Your task to perform on an android device: stop showing notifications on the lock screen Image 0: 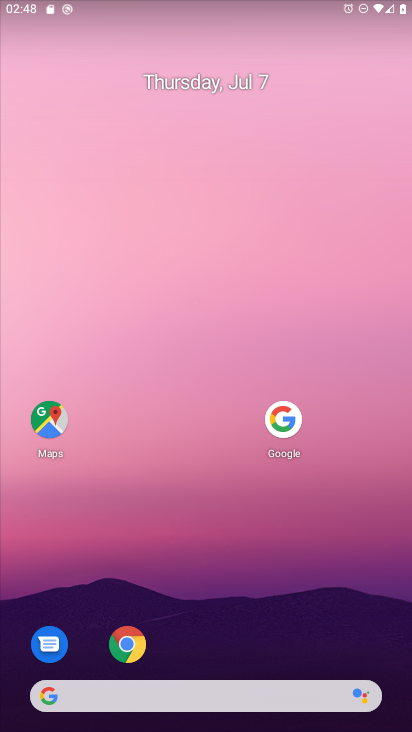
Step 0: drag from (159, 700) to (279, 127)
Your task to perform on an android device: stop showing notifications on the lock screen Image 1: 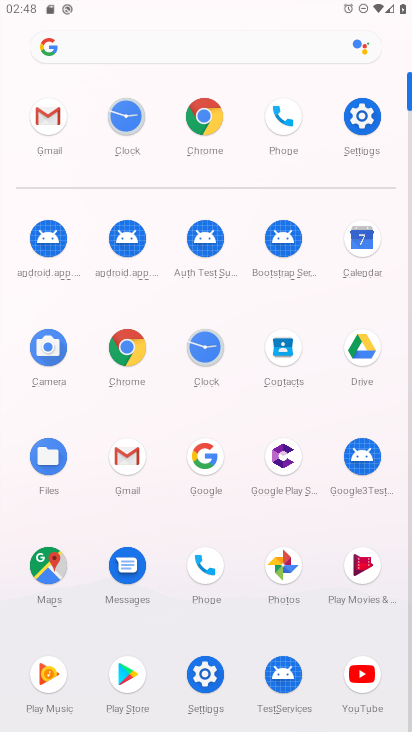
Step 1: click (363, 116)
Your task to perform on an android device: stop showing notifications on the lock screen Image 2: 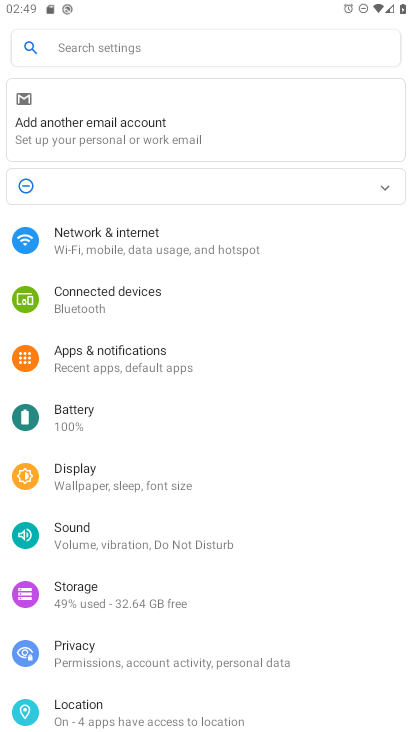
Step 2: click (134, 361)
Your task to perform on an android device: stop showing notifications on the lock screen Image 3: 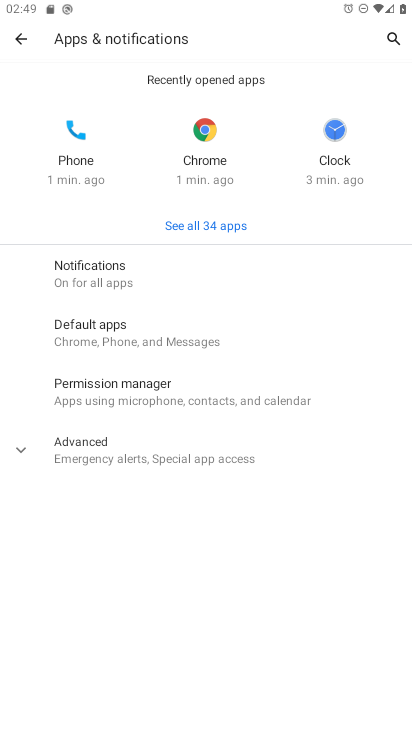
Step 3: click (102, 277)
Your task to perform on an android device: stop showing notifications on the lock screen Image 4: 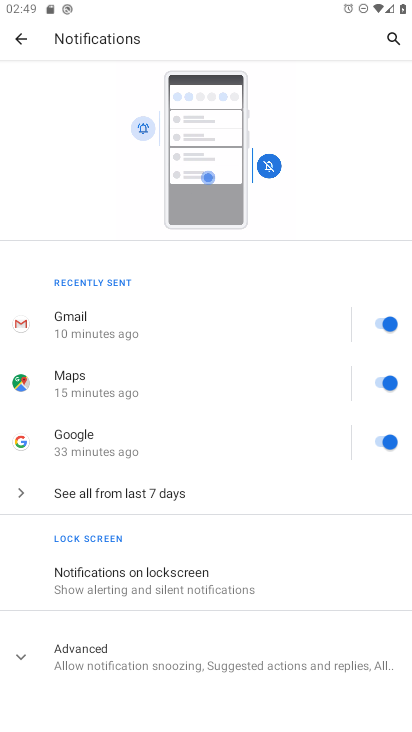
Step 4: click (178, 577)
Your task to perform on an android device: stop showing notifications on the lock screen Image 5: 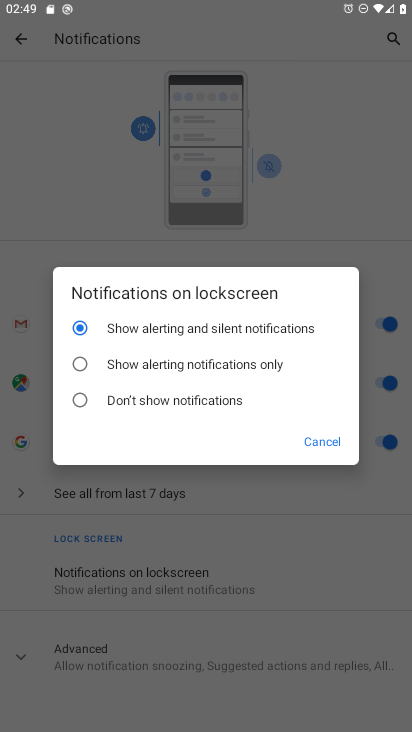
Step 5: click (77, 399)
Your task to perform on an android device: stop showing notifications on the lock screen Image 6: 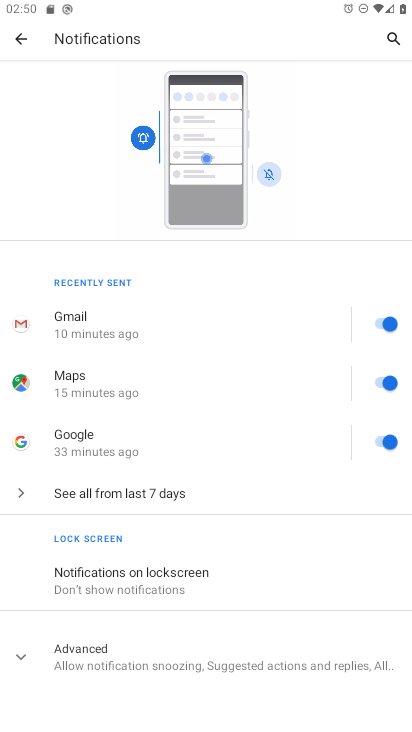
Step 6: task complete